Your task to perform on an android device: Go to display settings Image 0: 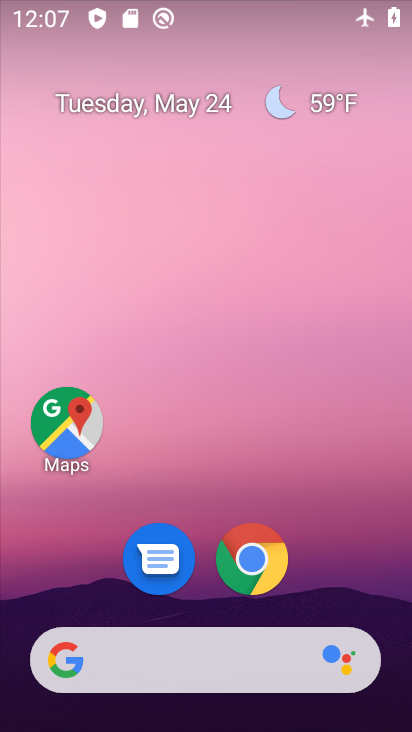
Step 0: drag from (385, 625) to (351, 73)
Your task to perform on an android device: Go to display settings Image 1: 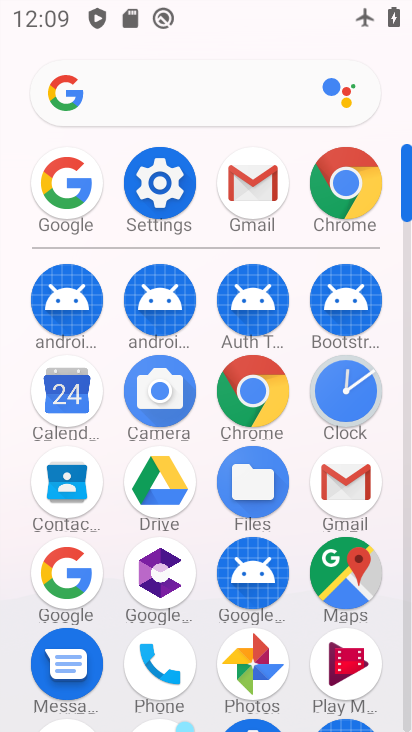
Step 1: click (155, 194)
Your task to perform on an android device: Go to display settings Image 2: 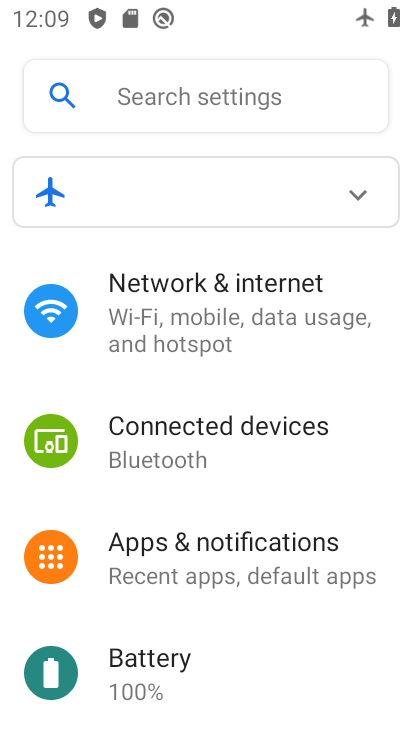
Step 2: drag from (206, 658) to (248, 254)
Your task to perform on an android device: Go to display settings Image 3: 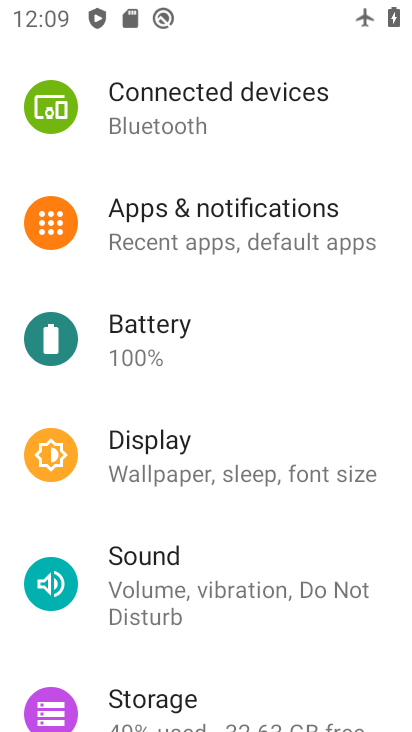
Step 3: click (190, 451)
Your task to perform on an android device: Go to display settings Image 4: 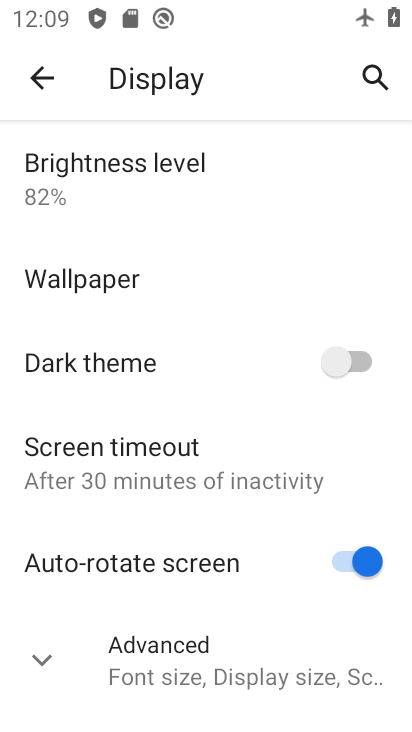
Step 4: task complete